Your task to perform on an android device: Go to location settings Image 0: 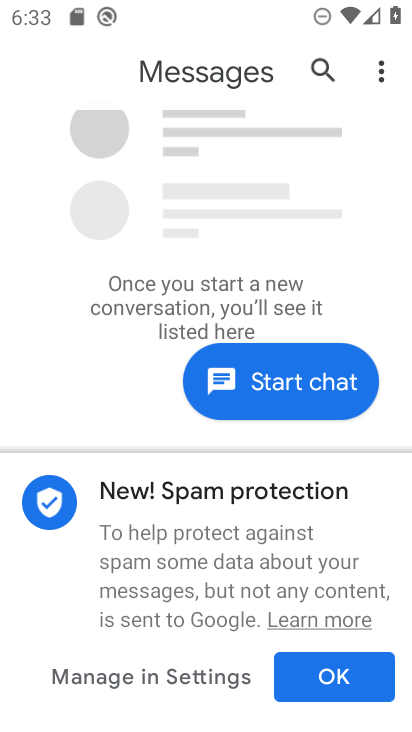
Step 0: press home button
Your task to perform on an android device: Go to location settings Image 1: 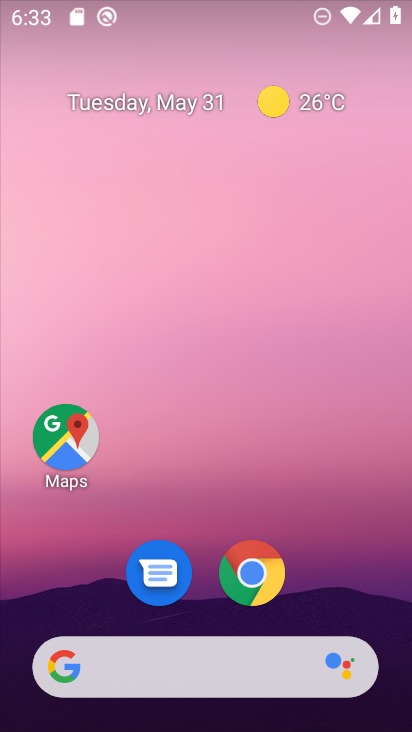
Step 1: drag from (390, 650) to (358, 138)
Your task to perform on an android device: Go to location settings Image 2: 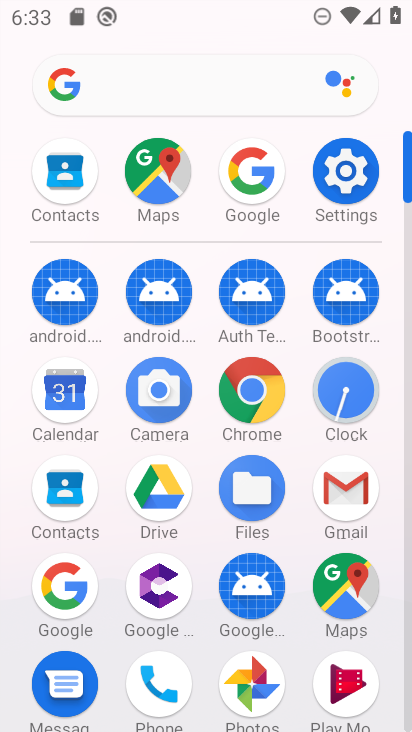
Step 2: click (337, 157)
Your task to perform on an android device: Go to location settings Image 3: 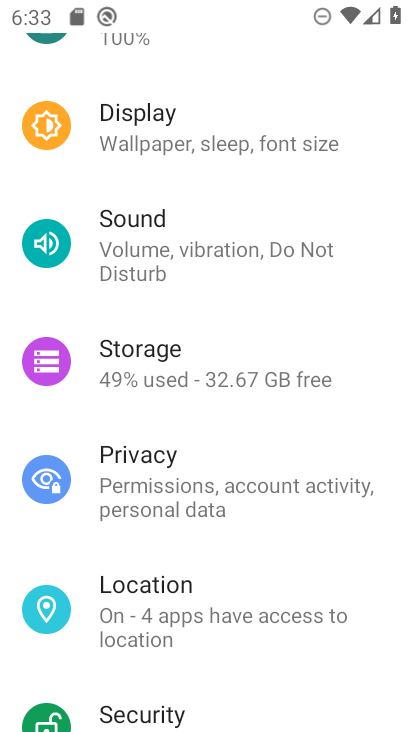
Step 3: click (237, 613)
Your task to perform on an android device: Go to location settings Image 4: 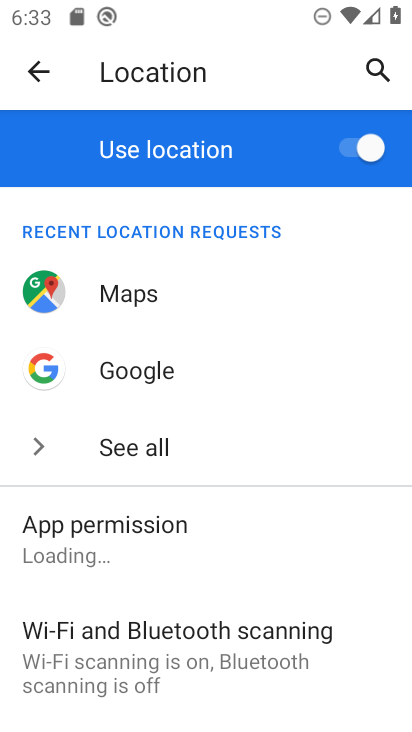
Step 4: task complete